Your task to perform on an android device: How much does the Samsung TV cost? Image 0: 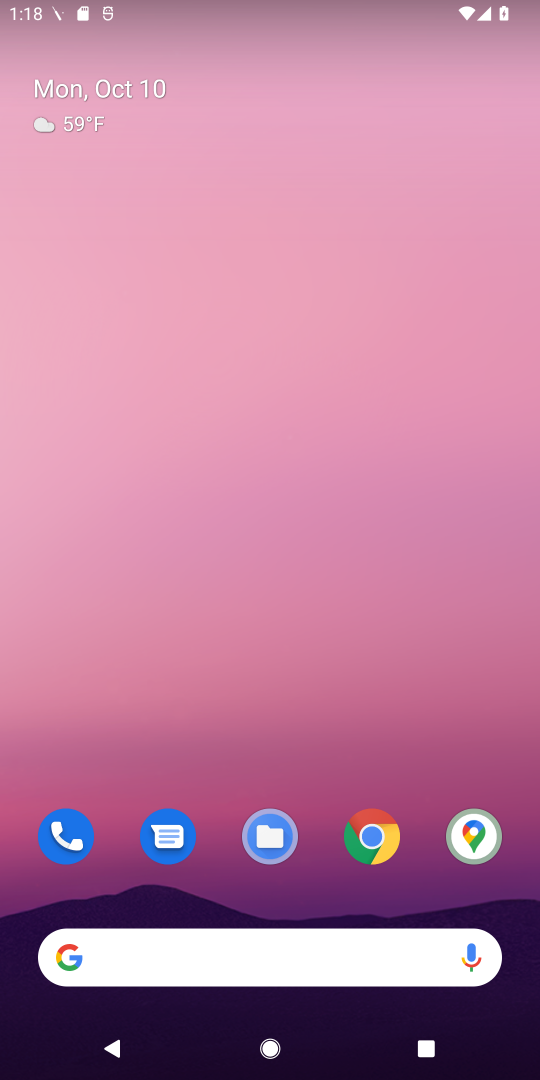
Step 0: click (386, 836)
Your task to perform on an android device: How much does the Samsung TV cost? Image 1: 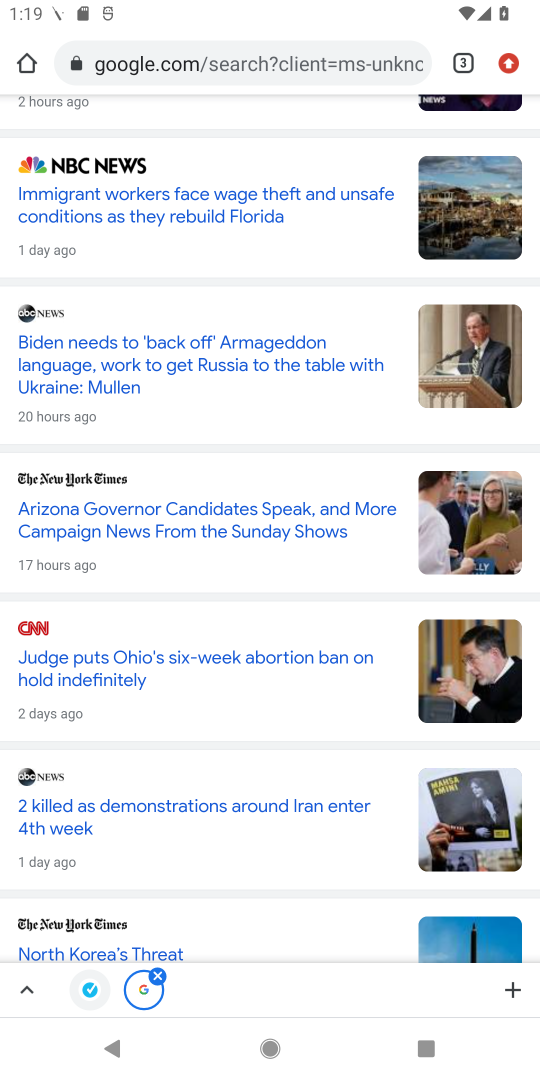
Step 1: click (153, 70)
Your task to perform on an android device: How much does the Samsung TV cost? Image 2: 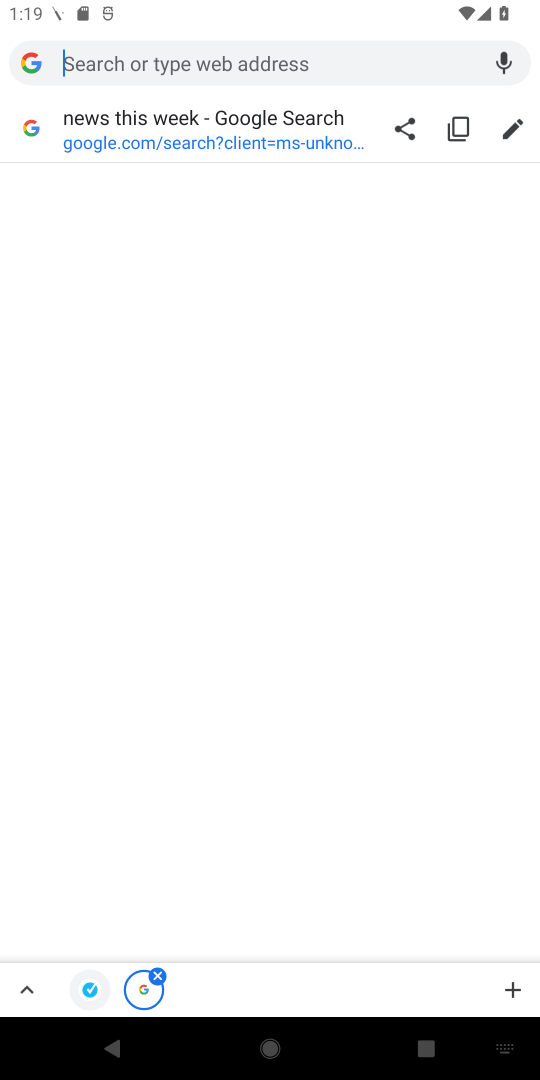
Step 2: type "How much does the Samsung TV cost?"
Your task to perform on an android device: How much does the Samsung TV cost? Image 3: 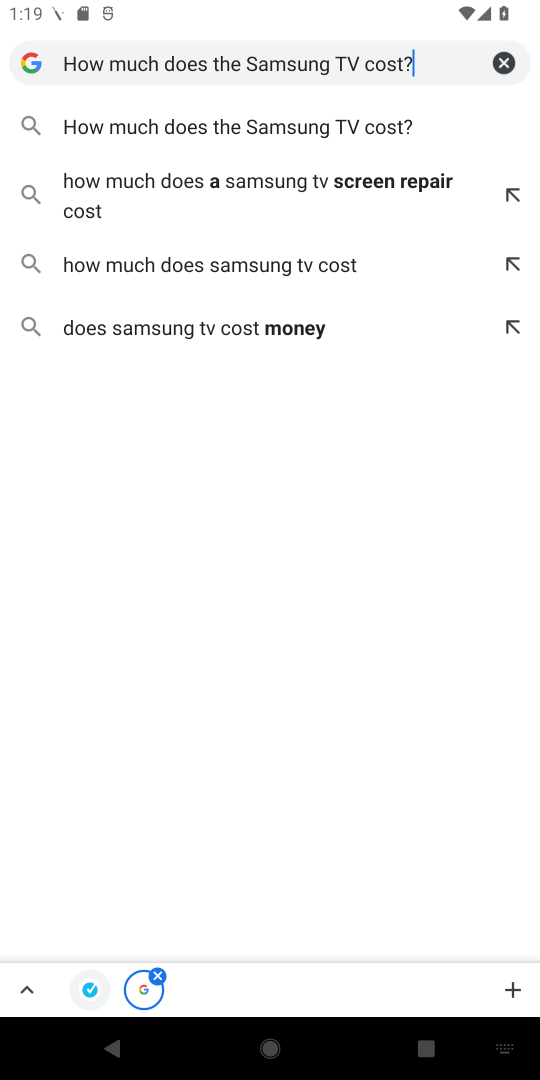
Step 3: click (321, 120)
Your task to perform on an android device: How much does the Samsung TV cost? Image 4: 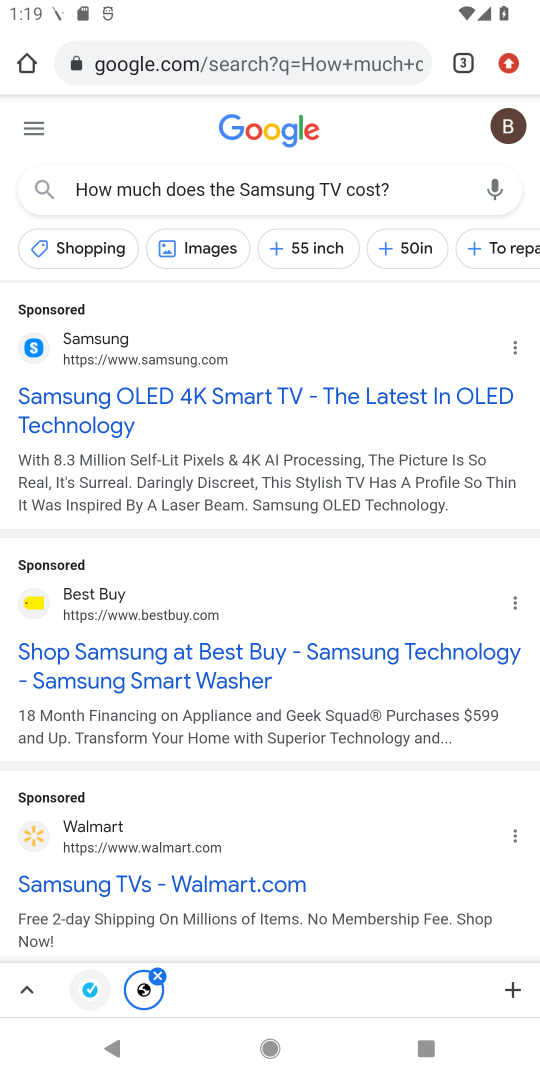
Step 4: task complete